Your task to perform on an android device: turn off location Image 0: 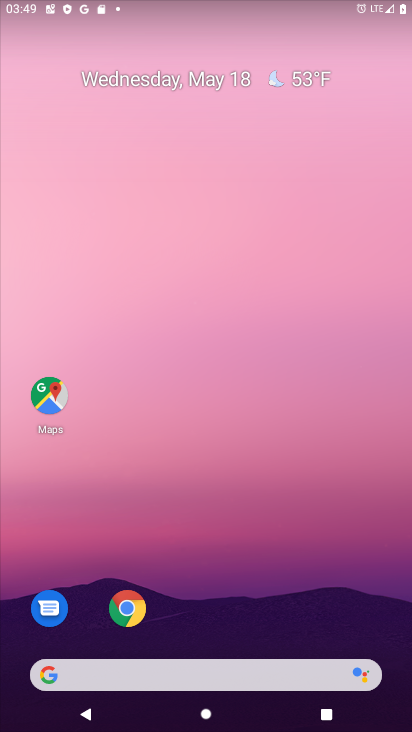
Step 0: drag from (274, 644) to (206, 3)
Your task to perform on an android device: turn off location Image 1: 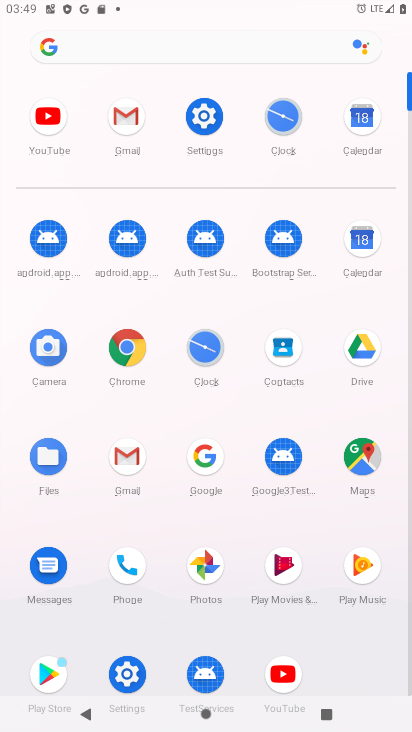
Step 1: click (197, 110)
Your task to perform on an android device: turn off location Image 2: 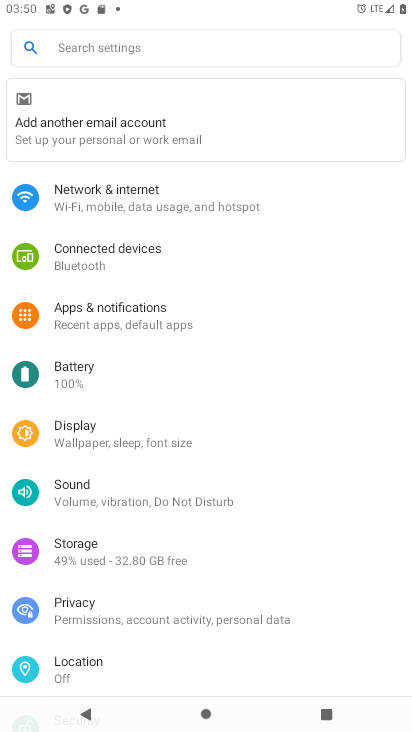
Step 2: click (74, 668)
Your task to perform on an android device: turn off location Image 3: 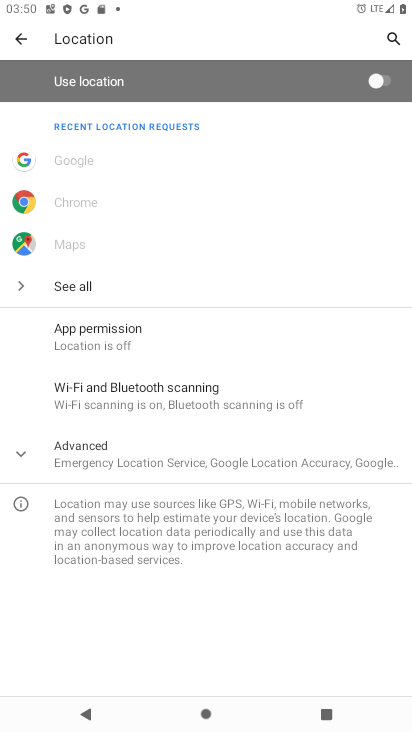
Step 3: task complete